Your task to perform on an android device: Go to display settings Image 0: 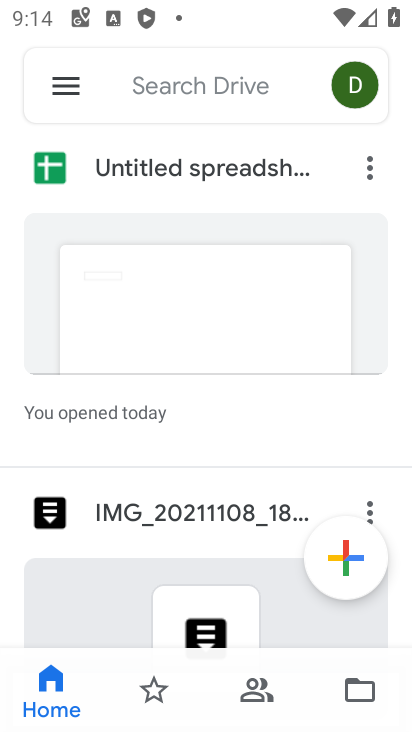
Step 0: press home button
Your task to perform on an android device: Go to display settings Image 1: 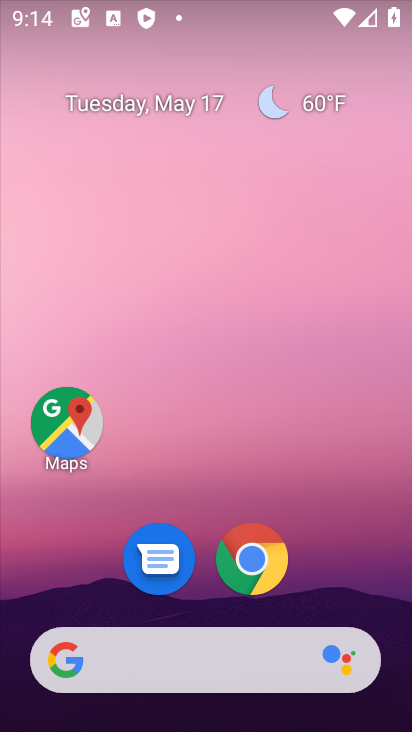
Step 1: drag from (254, 601) to (342, 158)
Your task to perform on an android device: Go to display settings Image 2: 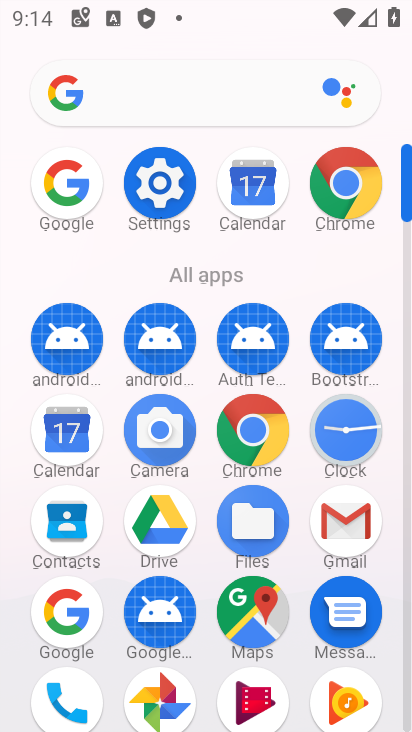
Step 2: click (155, 197)
Your task to perform on an android device: Go to display settings Image 3: 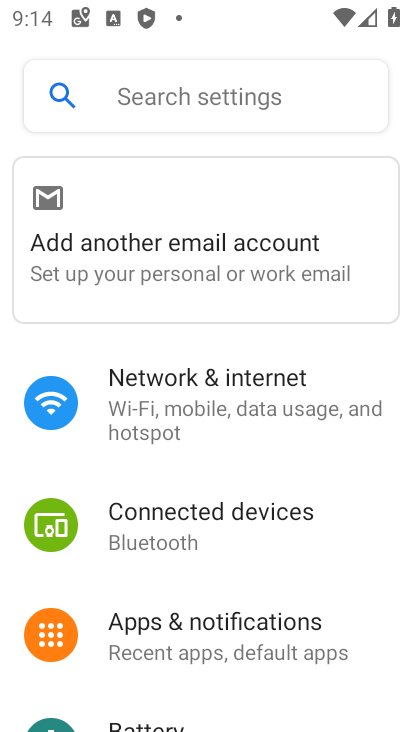
Step 3: drag from (237, 518) to (353, 128)
Your task to perform on an android device: Go to display settings Image 4: 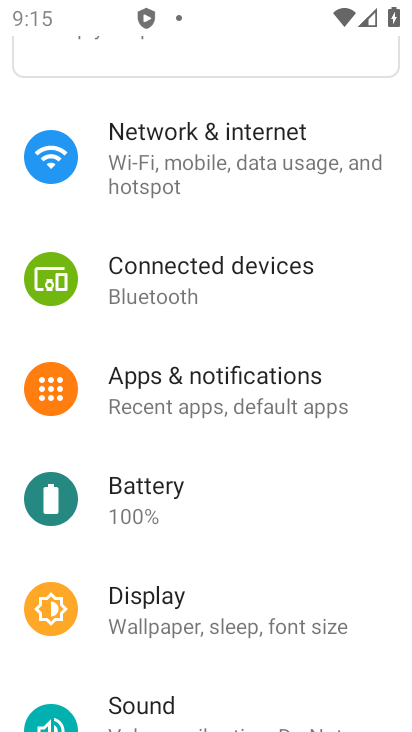
Step 4: click (221, 630)
Your task to perform on an android device: Go to display settings Image 5: 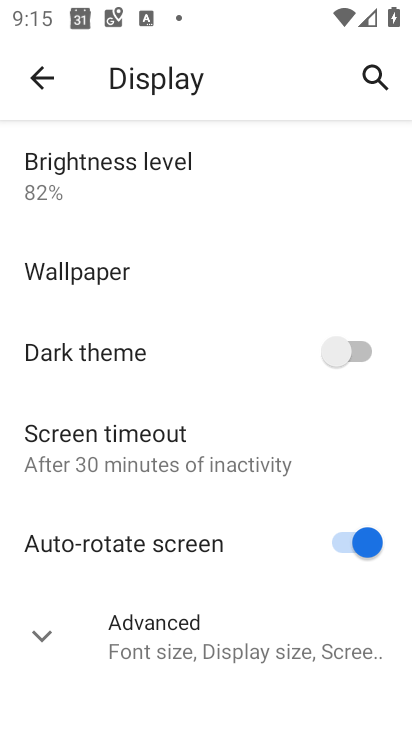
Step 5: task complete